Your task to perform on an android device: Go to privacy settings Image 0: 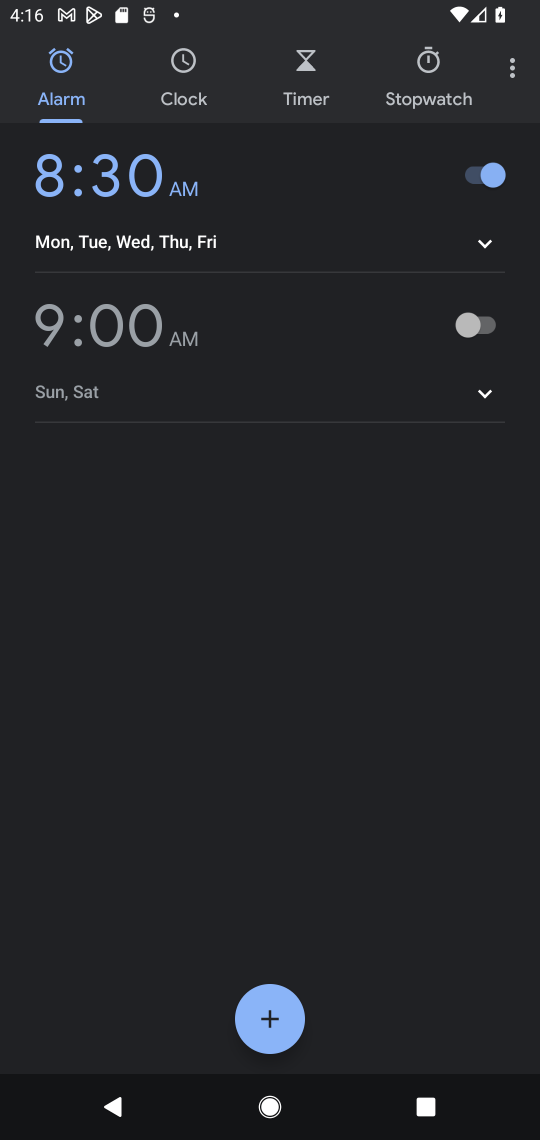
Step 0: press home button
Your task to perform on an android device: Go to privacy settings Image 1: 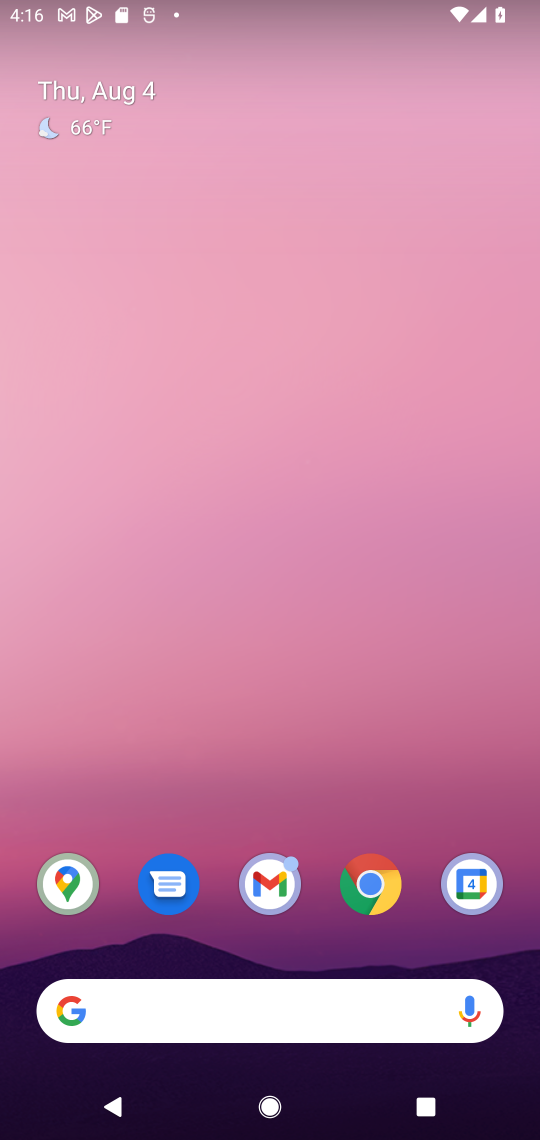
Step 1: drag from (310, 953) to (292, 141)
Your task to perform on an android device: Go to privacy settings Image 2: 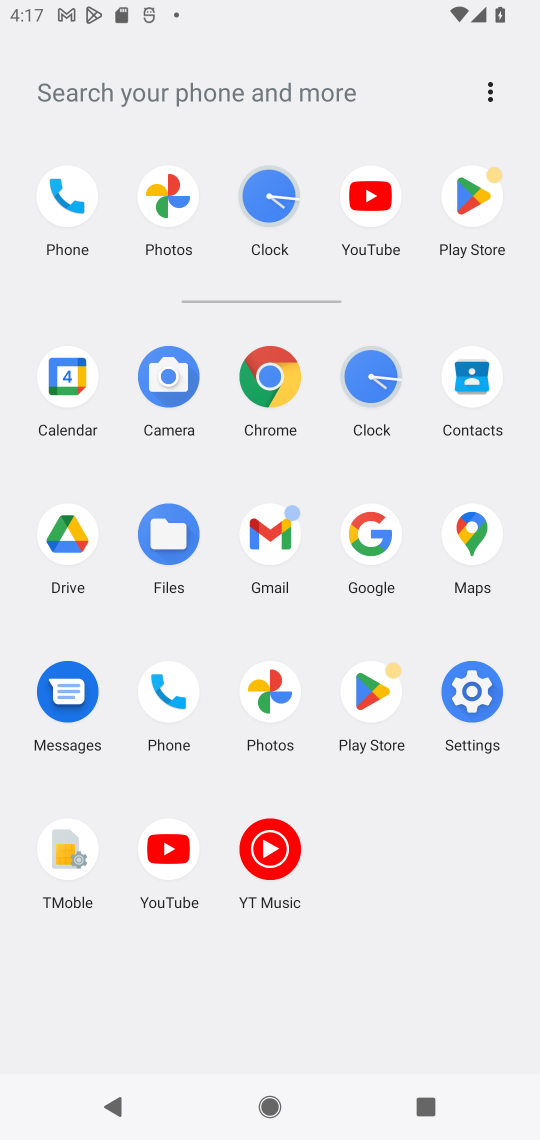
Step 2: click (481, 732)
Your task to perform on an android device: Go to privacy settings Image 3: 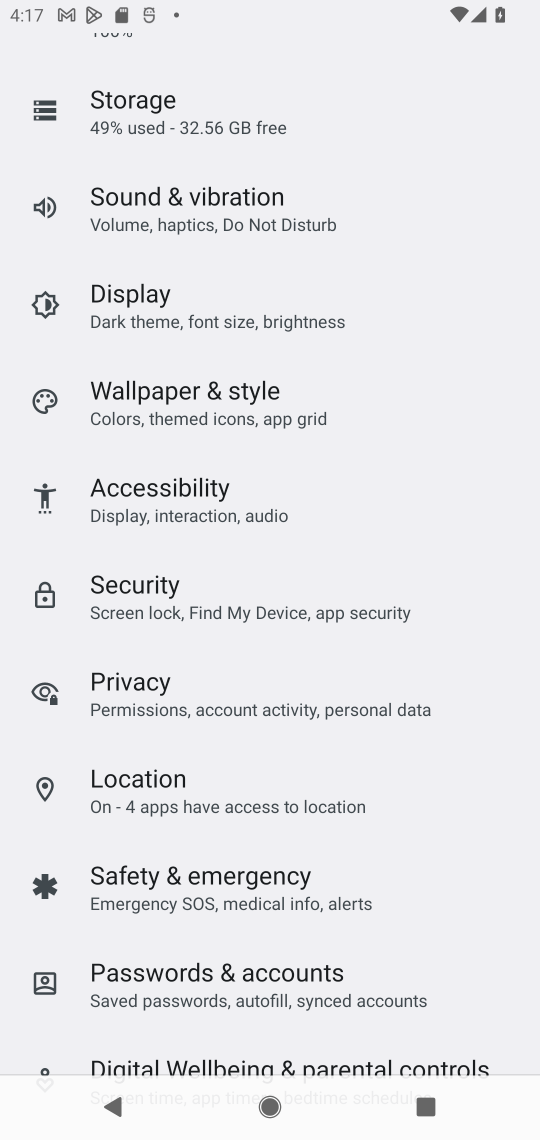
Step 3: click (232, 694)
Your task to perform on an android device: Go to privacy settings Image 4: 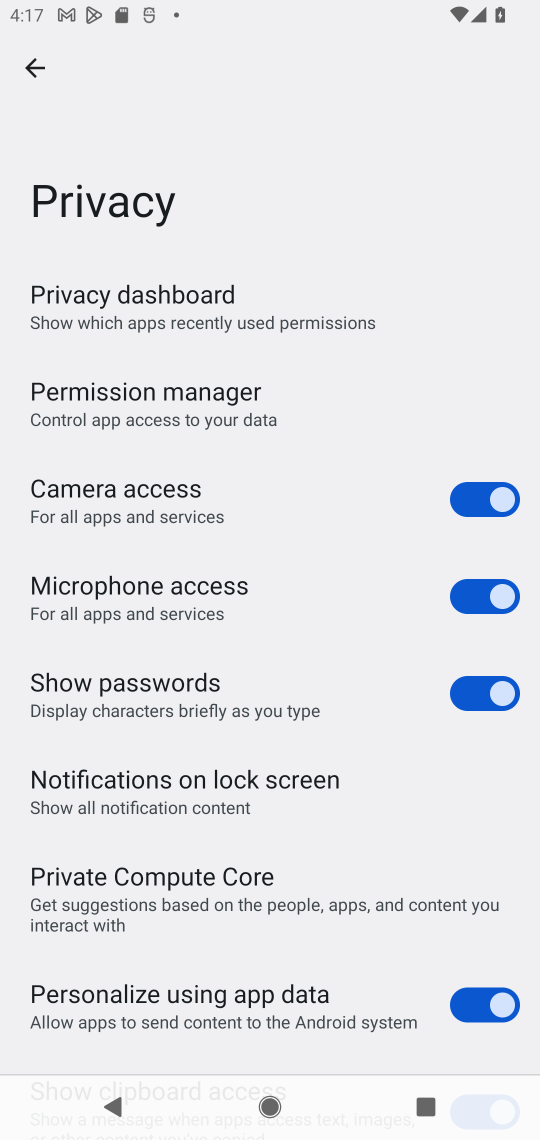
Step 4: task complete